Your task to perform on an android device: turn smart compose on in the gmail app Image 0: 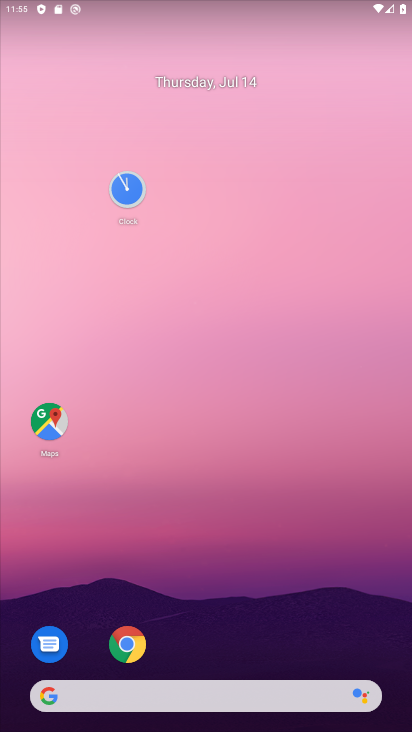
Step 0: drag from (245, 623) to (283, 242)
Your task to perform on an android device: turn smart compose on in the gmail app Image 1: 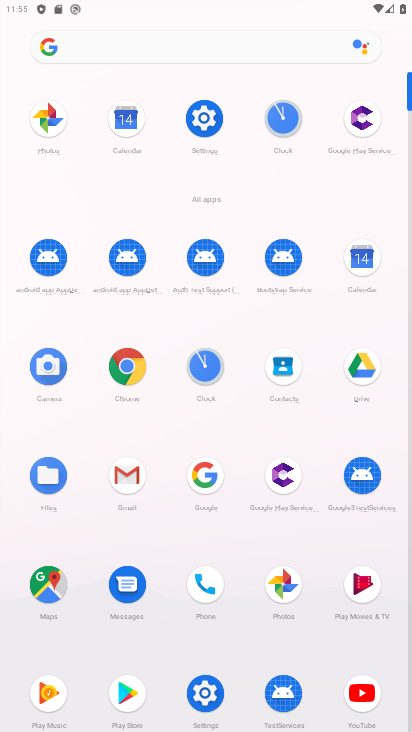
Step 1: click (123, 479)
Your task to perform on an android device: turn smart compose on in the gmail app Image 2: 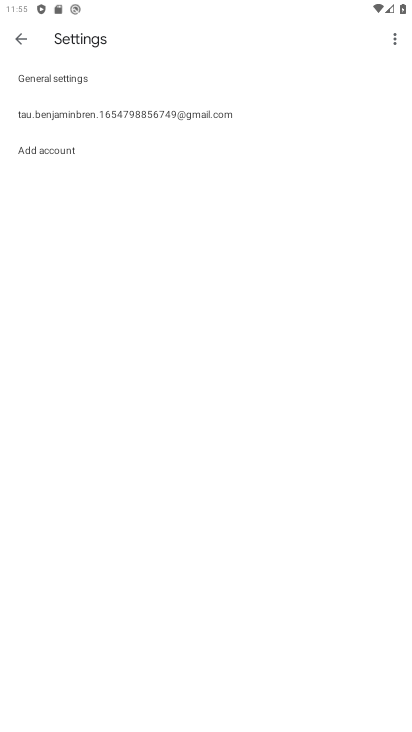
Step 2: click (175, 109)
Your task to perform on an android device: turn smart compose on in the gmail app Image 3: 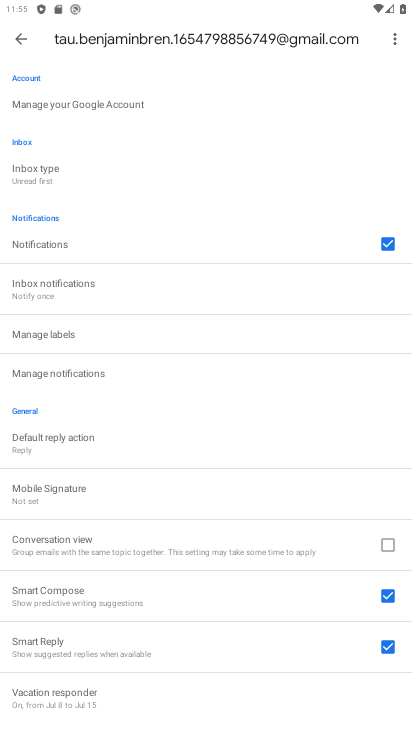
Step 3: task complete